Your task to perform on an android device: empty trash in the gmail app Image 0: 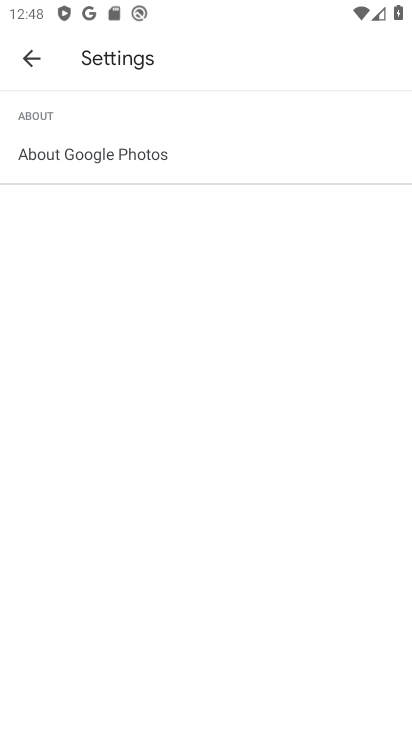
Step 0: press home button
Your task to perform on an android device: empty trash in the gmail app Image 1: 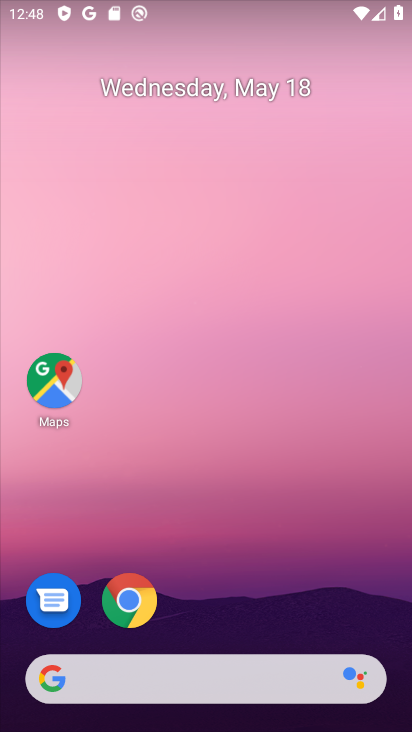
Step 1: drag from (206, 497) to (257, 132)
Your task to perform on an android device: empty trash in the gmail app Image 2: 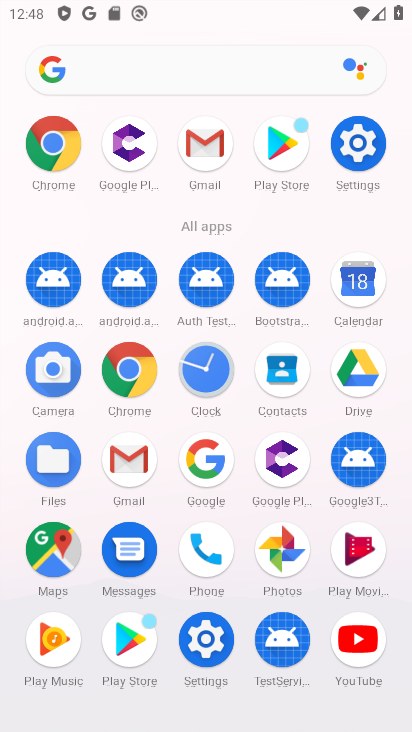
Step 2: click (201, 154)
Your task to perform on an android device: empty trash in the gmail app Image 3: 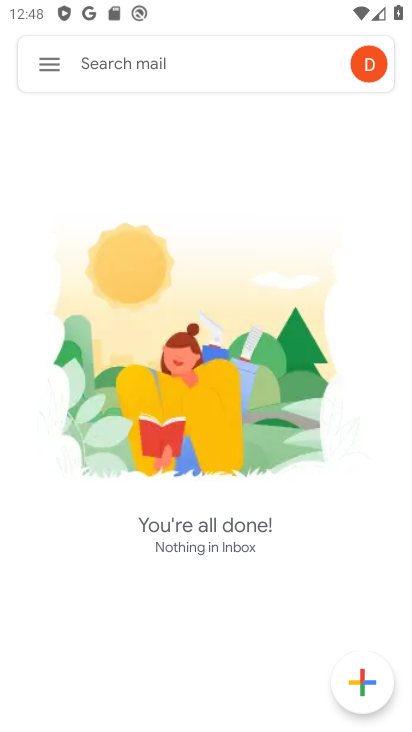
Step 3: click (51, 57)
Your task to perform on an android device: empty trash in the gmail app Image 4: 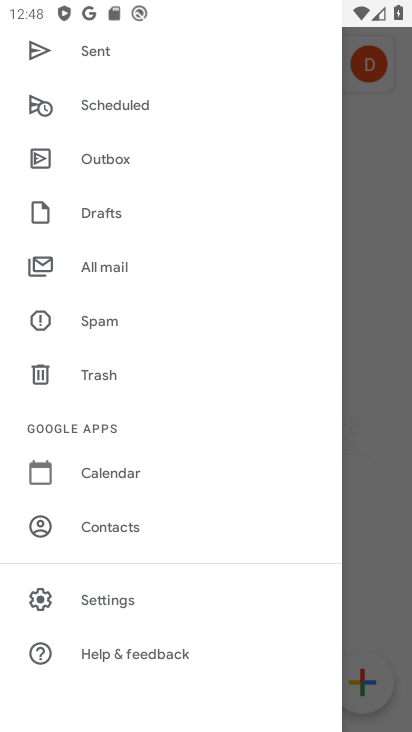
Step 4: click (118, 375)
Your task to perform on an android device: empty trash in the gmail app Image 5: 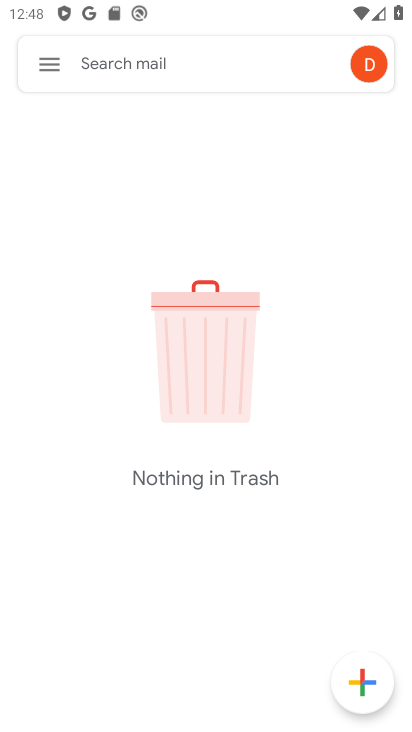
Step 5: task complete